Your task to perform on an android device: turn on showing notifications on the lock screen Image 0: 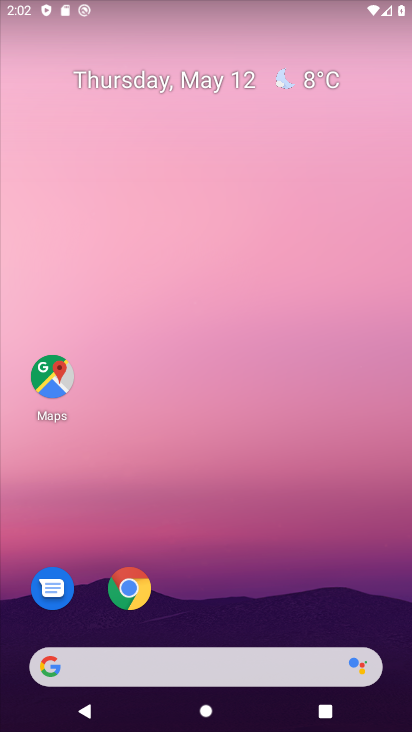
Step 0: drag from (283, 552) to (204, 8)
Your task to perform on an android device: turn on showing notifications on the lock screen Image 1: 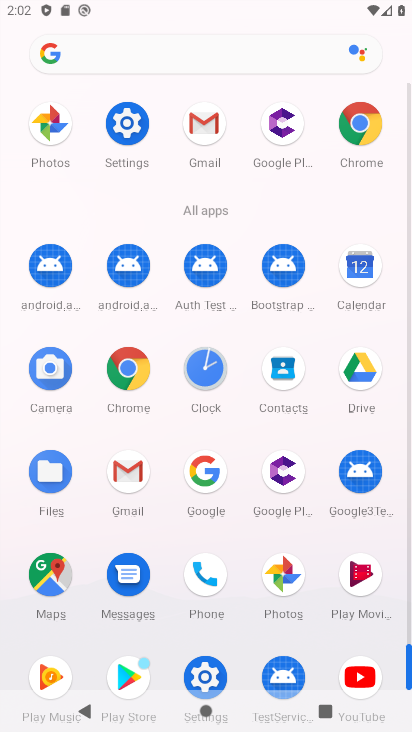
Step 1: drag from (15, 538) to (15, 285)
Your task to perform on an android device: turn on showing notifications on the lock screen Image 2: 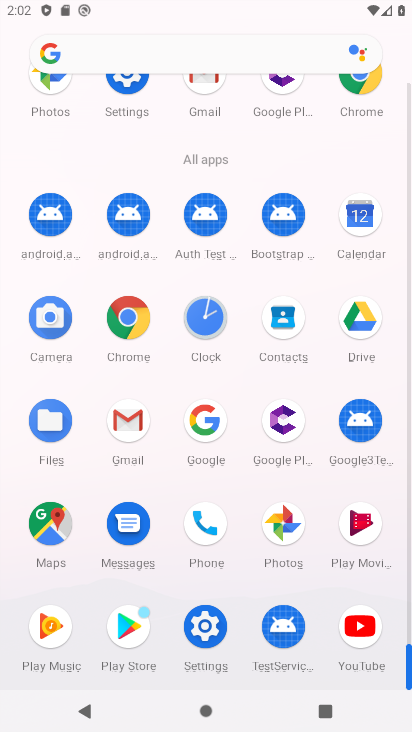
Step 2: click (207, 623)
Your task to perform on an android device: turn on showing notifications on the lock screen Image 3: 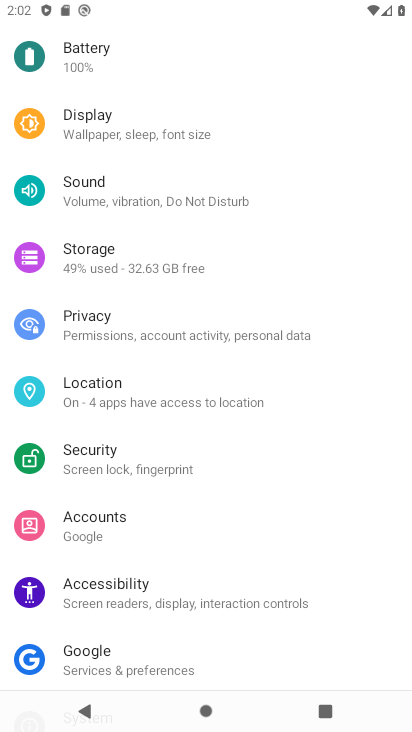
Step 3: drag from (175, 187) to (140, 537)
Your task to perform on an android device: turn on showing notifications on the lock screen Image 4: 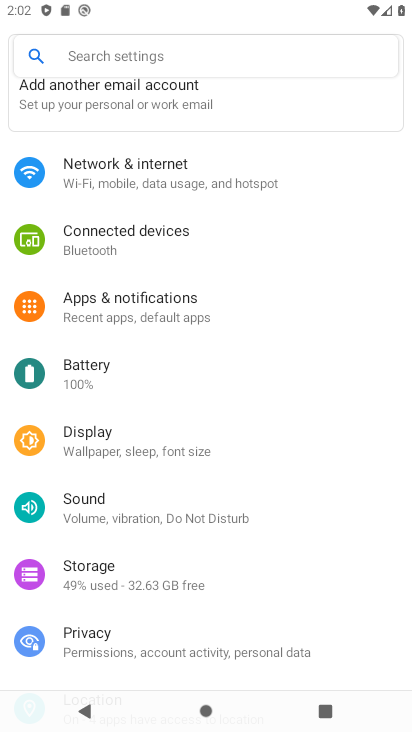
Step 4: click (155, 310)
Your task to perform on an android device: turn on showing notifications on the lock screen Image 5: 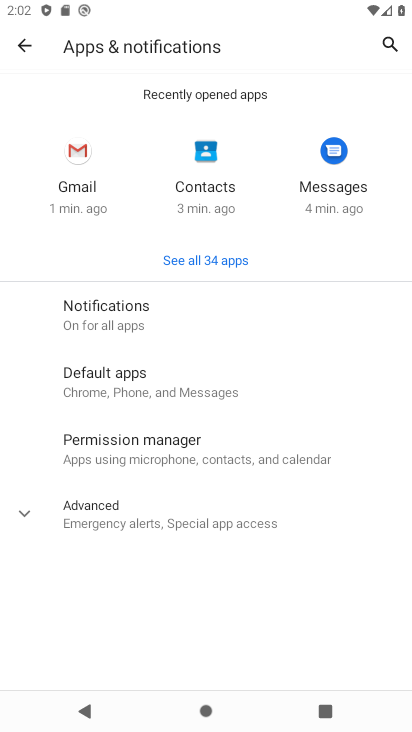
Step 5: click (27, 503)
Your task to perform on an android device: turn on showing notifications on the lock screen Image 6: 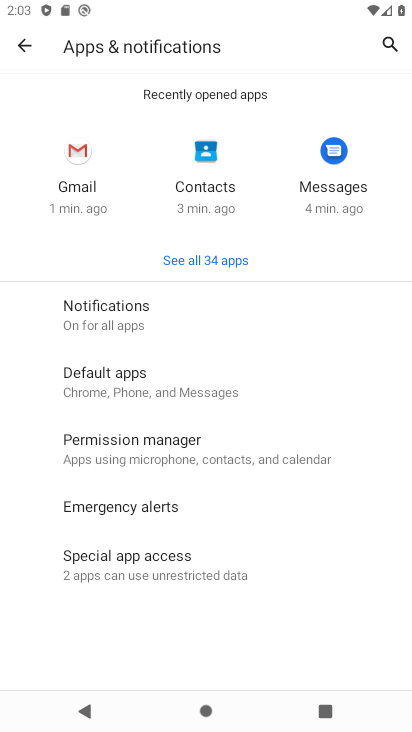
Step 6: click (149, 332)
Your task to perform on an android device: turn on showing notifications on the lock screen Image 7: 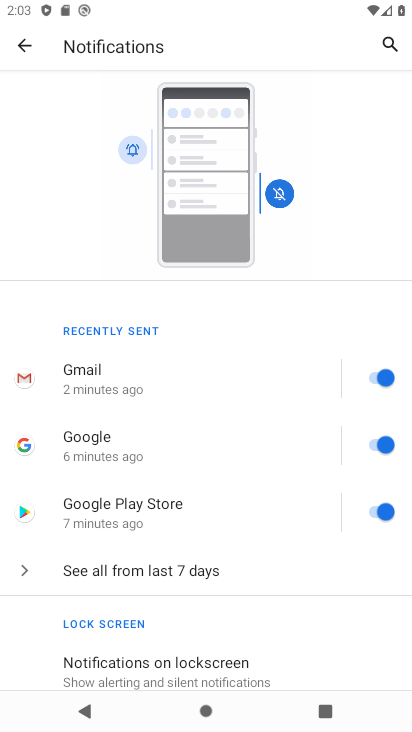
Step 7: drag from (212, 494) to (267, 78)
Your task to perform on an android device: turn on showing notifications on the lock screen Image 8: 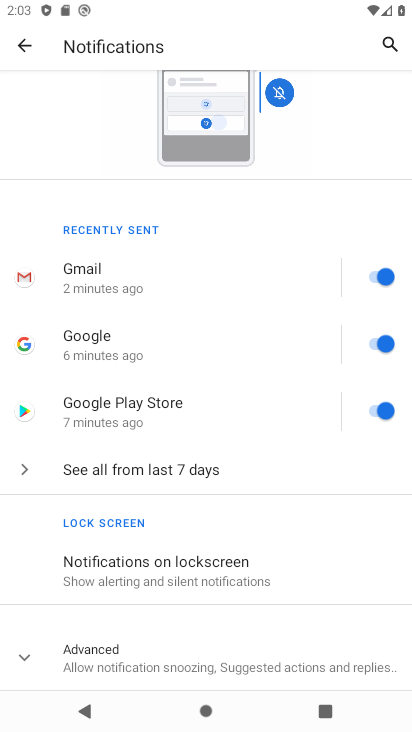
Step 8: drag from (234, 564) to (240, 334)
Your task to perform on an android device: turn on showing notifications on the lock screen Image 9: 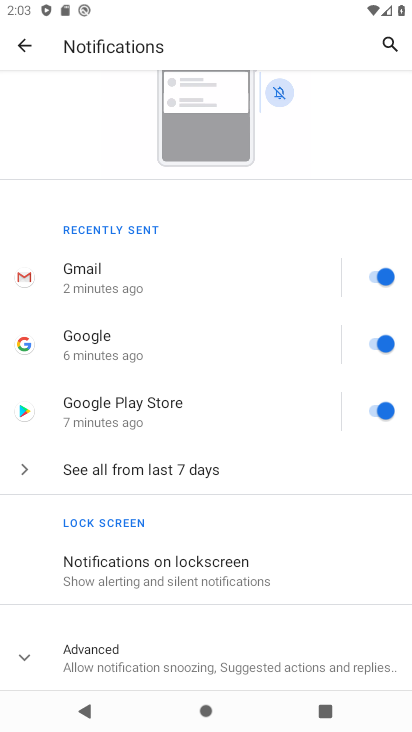
Step 9: click (177, 565)
Your task to perform on an android device: turn on showing notifications on the lock screen Image 10: 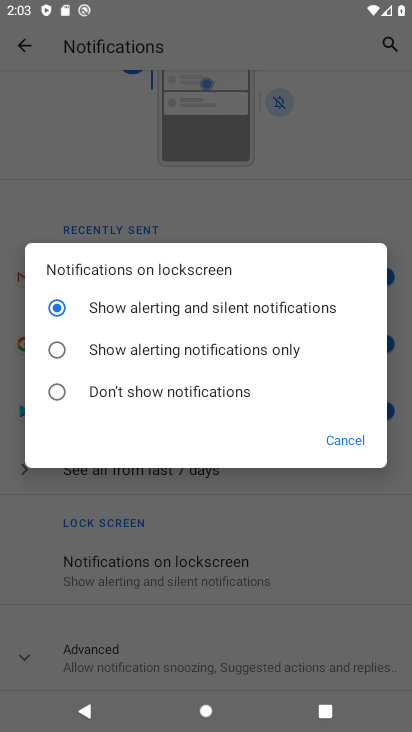
Step 10: click (148, 301)
Your task to perform on an android device: turn on showing notifications on the lock screen Image 11: 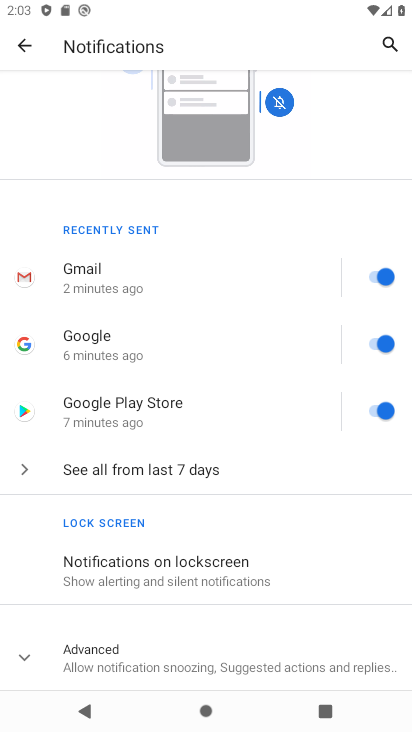
Step 11: task complete